Your task to perform on an android device: open app "Reddit" (install if not already installed), go to login, and select forgot password Image 0: 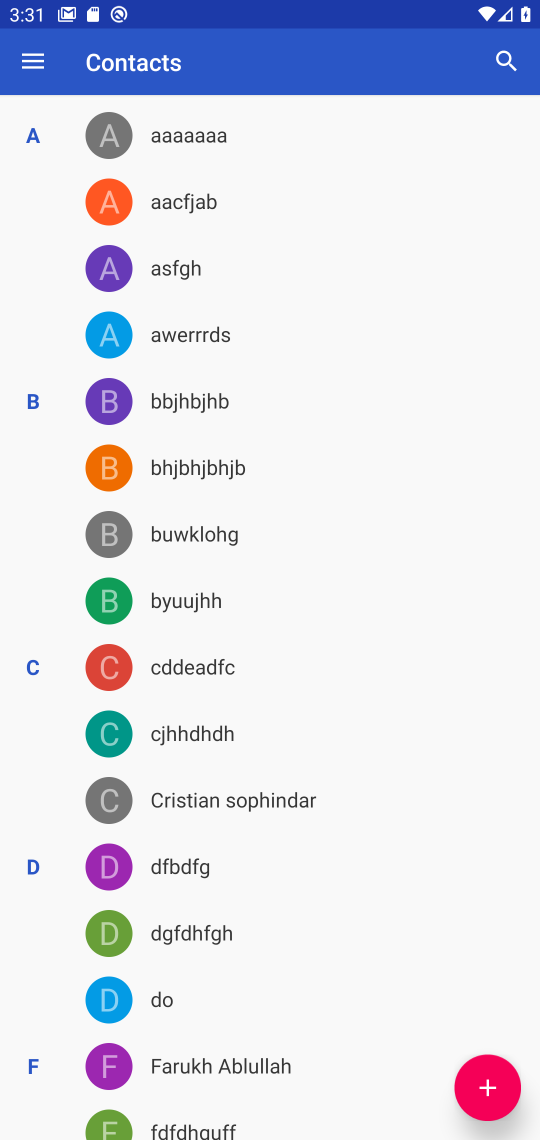
Step 0: press home button
Your task to perform on an android device: open app "Reddit" (install if not already installed), go to login, and select forgot password Image 1: 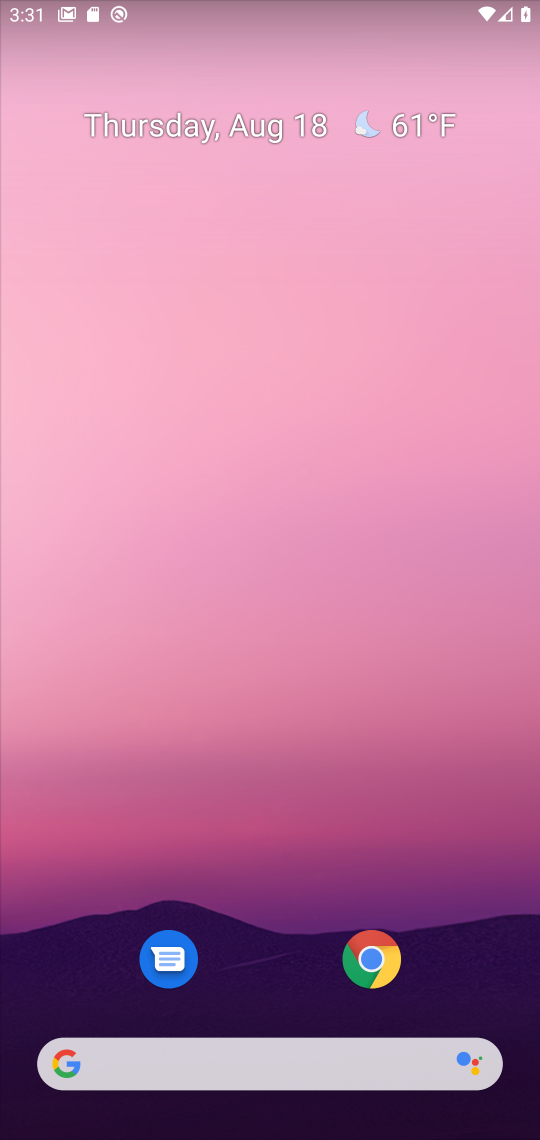
Step 1: drag from (317, 908) to (523, 197)
Your task to perform on an android device: open app "Reddit" (install if not already installed), go to login, and select forgot password Image 2: 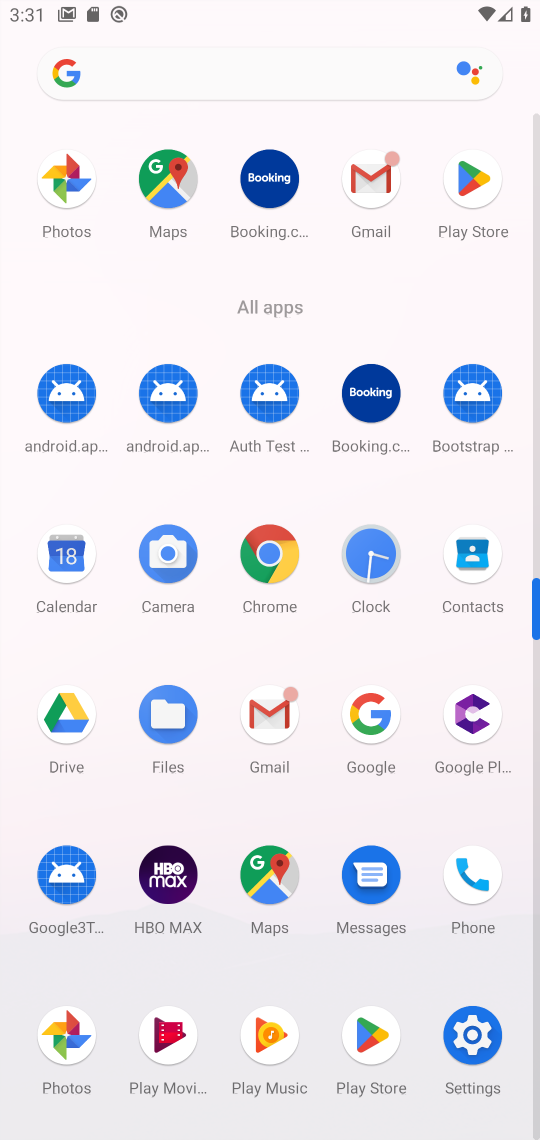
Step 2: click (461, 221)
Your task to perform on an android device: open app "Reddit" (install if not already installed), go to login, and select forgot password Image 3: 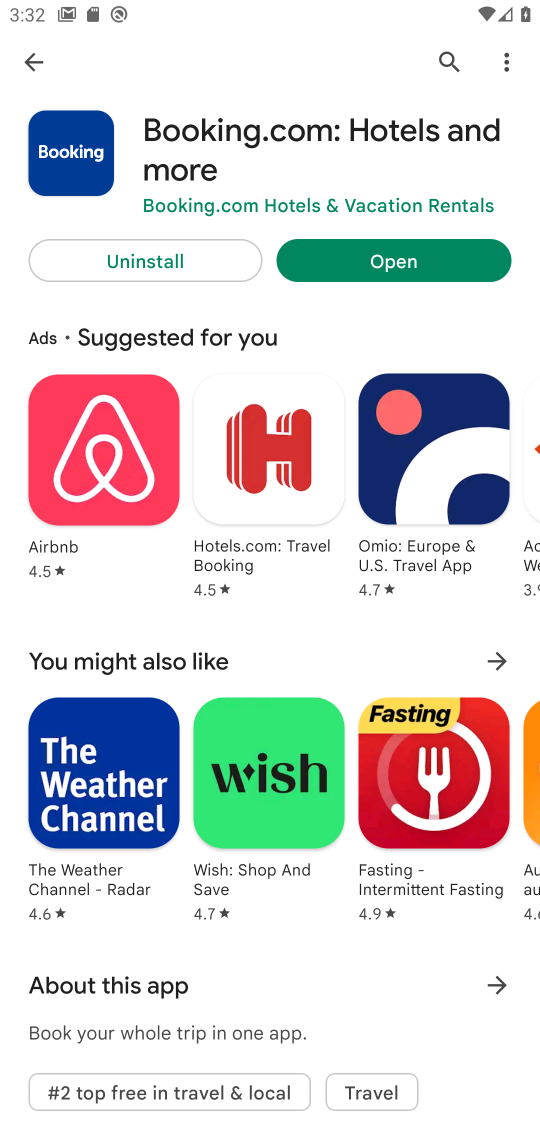
Step 3: click (18, 64)
Your task to perform on an android device: open app "Reddit" (install if not already installed), go to login, and select forgot password Image 4: 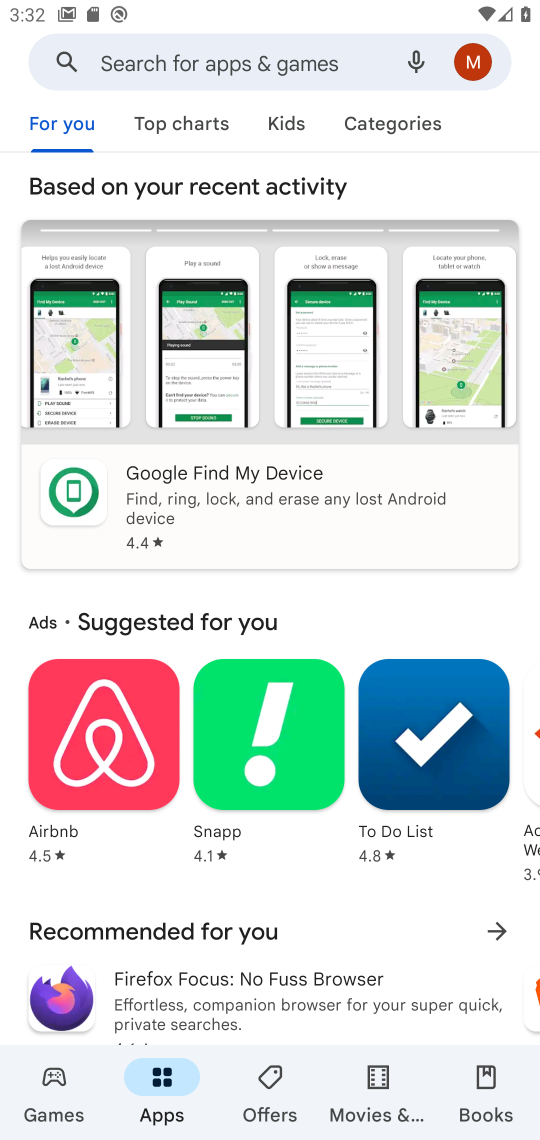
Step 4: click (206, 69)
Your task to perform on an android device: open app "Reddit" (install if not already installed), go to login, and select forgot password Image 5: 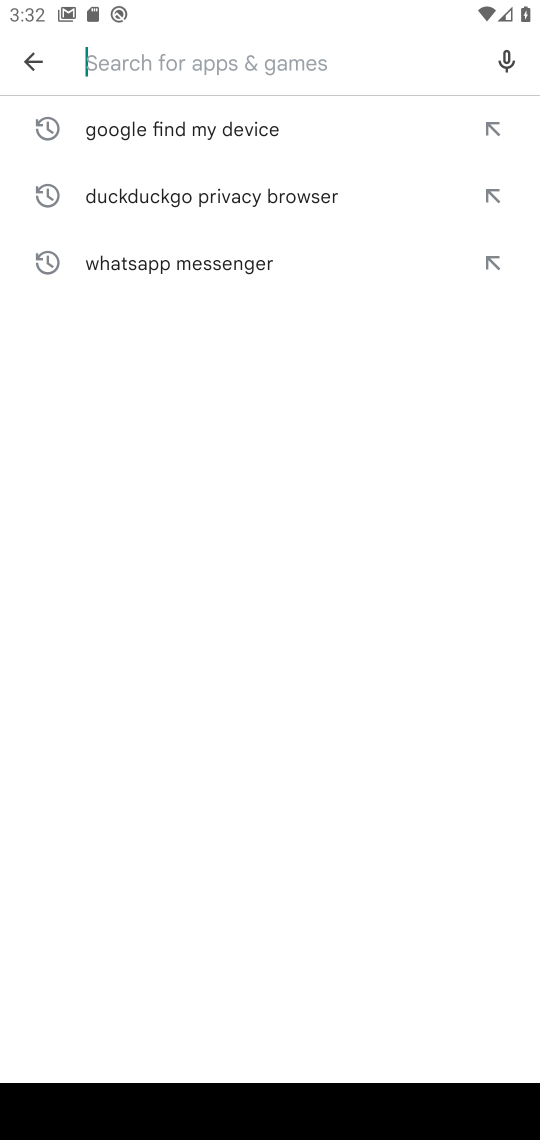
Step 5: type "Reddit"
Your task to perform on an android device: open app "Reddit" (install if not already installed), go to login, and select forgot password Image 6: 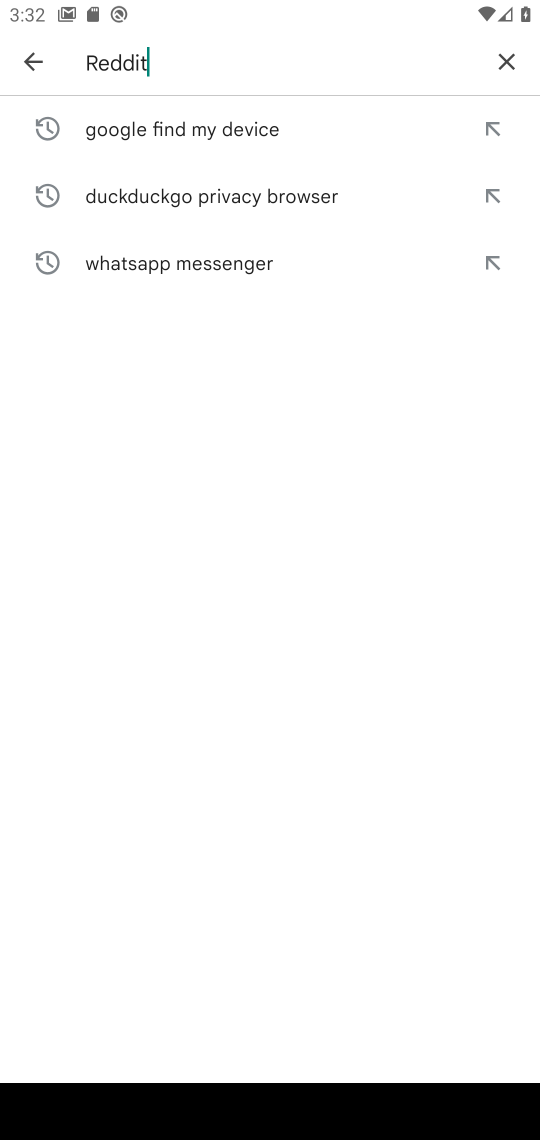
Step 6: type ""
Your task to perform on an android device: open app "Reddit" (install if not already installed), go to login, and select forgot password Image 7: 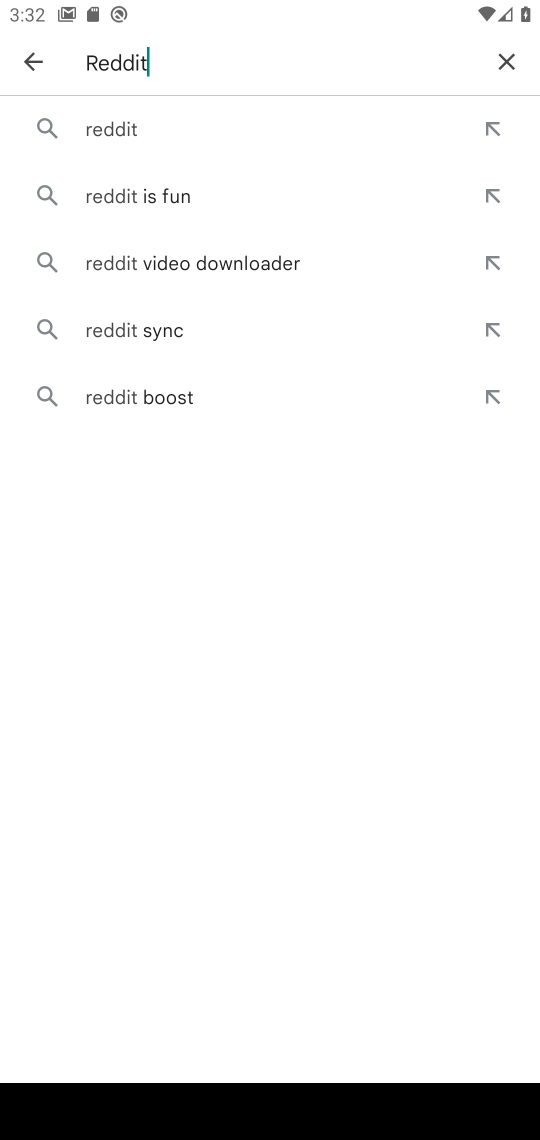
Step 7: click (189, 122)
Your task to perform on an android device: open app "Reddit" (install if not already installed), go to login, and select forgot password Image 8: 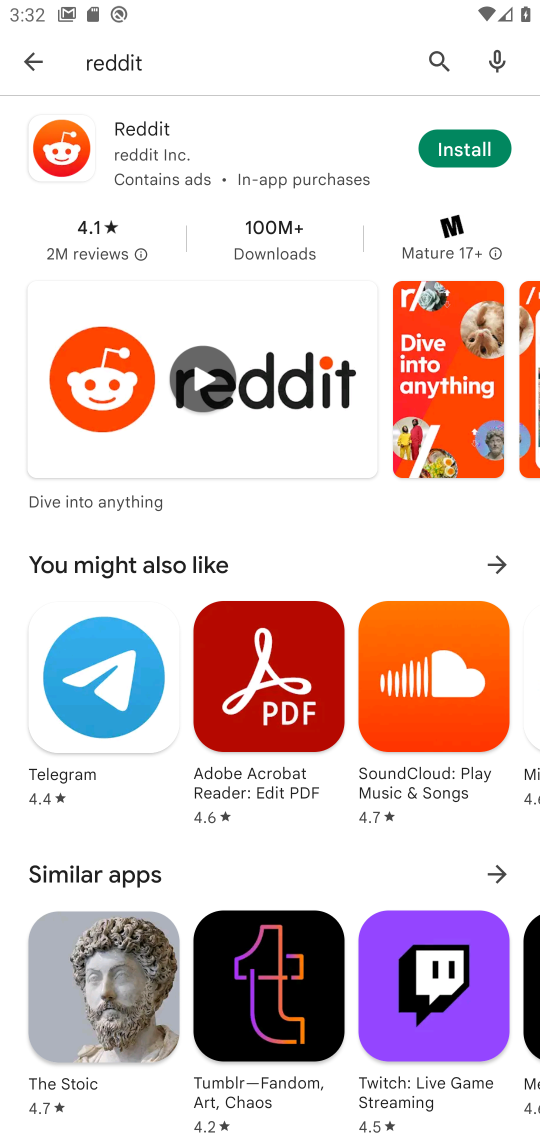
Step 8: click (475, 144)
Your task to perform on an android device: open app "Reddit" (install if not already installed), go to login, and select forgot password Image 9: 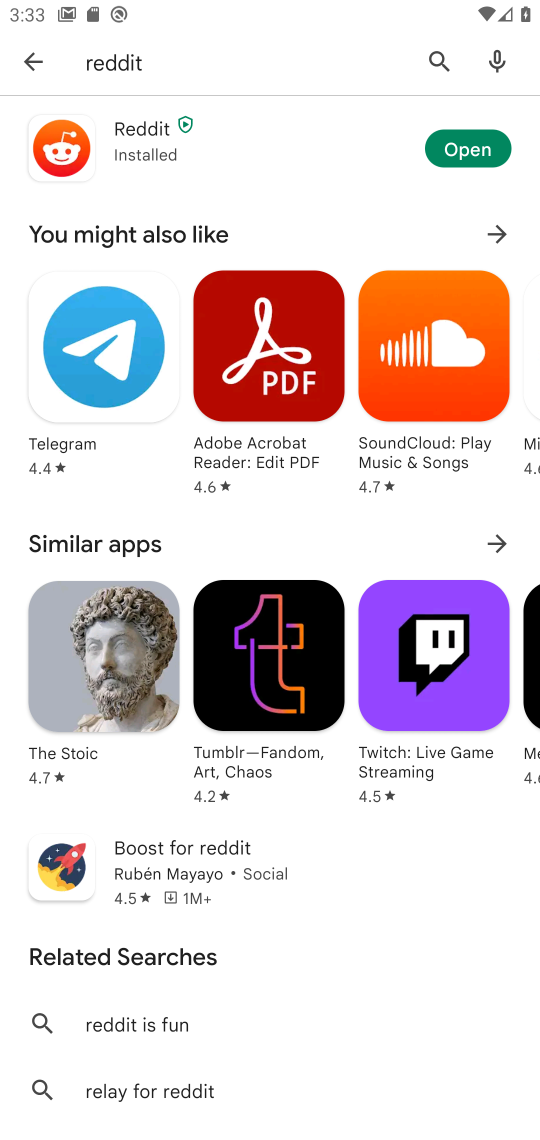
Step 9: click (471, 153)
Your task to perform on an android device: open app "Reddit" (install if not already installed), go to login, and select forgot password Image 10: 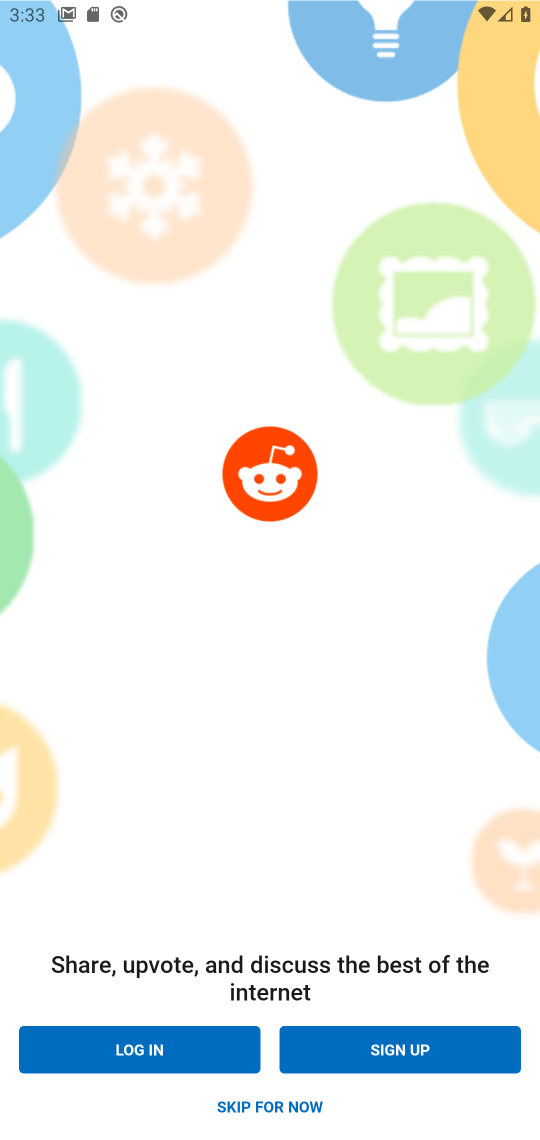
Step 10: task complete